Your task to perform on an android device: toggle javascript in the chrome app Image 0: 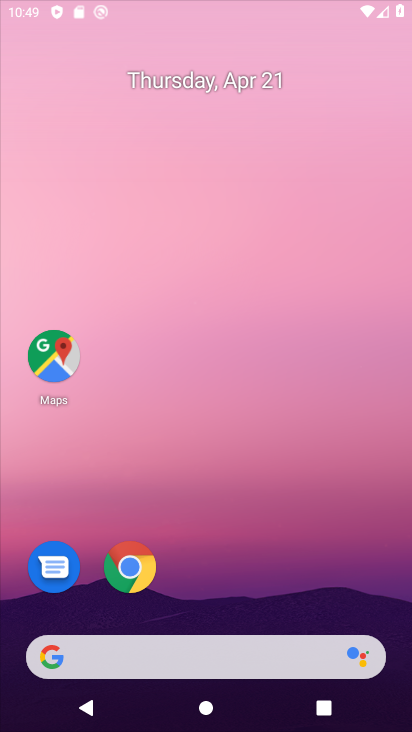
Step 0: drag from (207, 533) to (241, 96)
Your task to perform on an android device: toggle javascript in the chrome app Image 1: 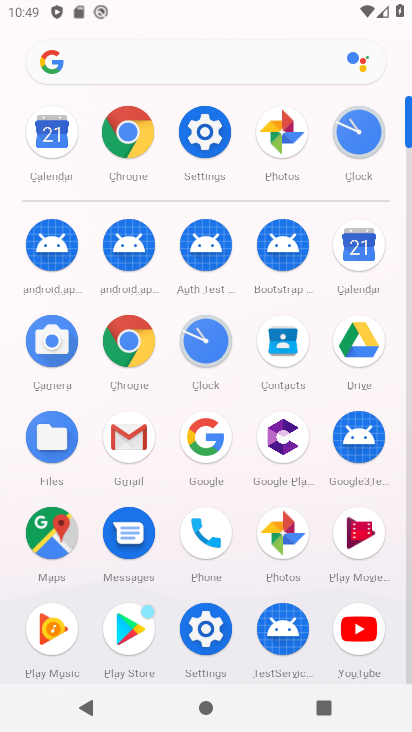
Step 1: click (125, 330)
Your task to perform on an android device: toggle javascript in the chrome app Image 2: 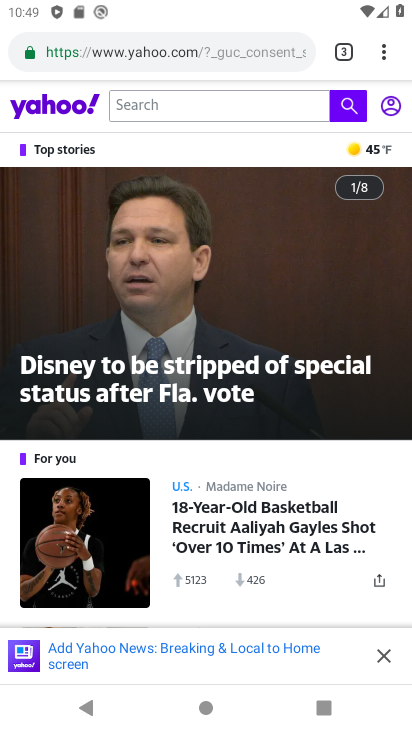
Step 2: click (390, 54)
Your task to perform on an android device: toggle javascript in the chrome app Image 3: 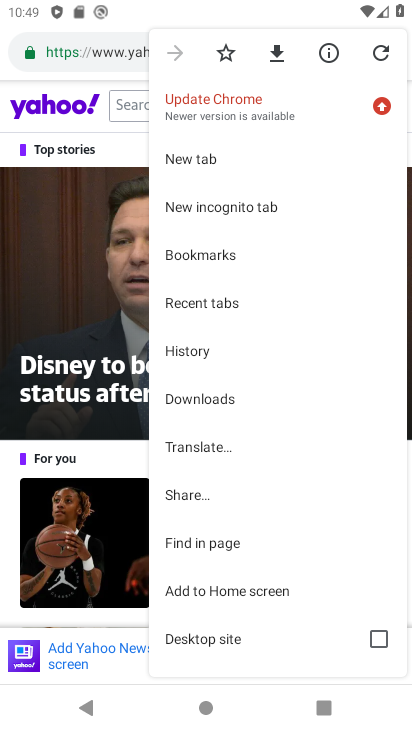
Step 3: drag from (197, 620) to (247, 253)
Your task to perform on an android device: toggle javascript in the chrome app Image 4: 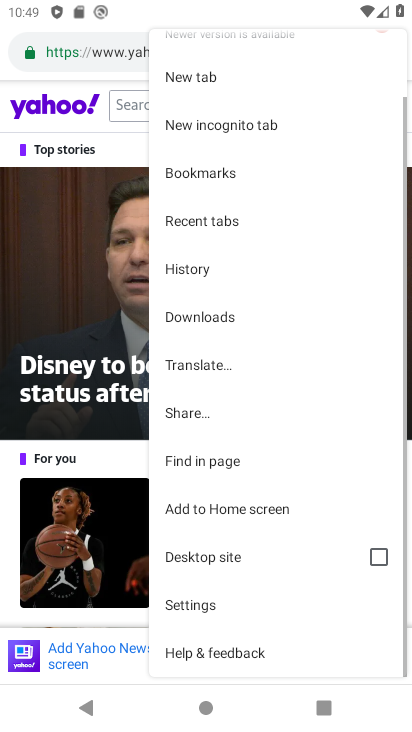
Step 4: click (213, 607)
Your task to perform on an android device: toggle javascript in the chrome app Image 5: 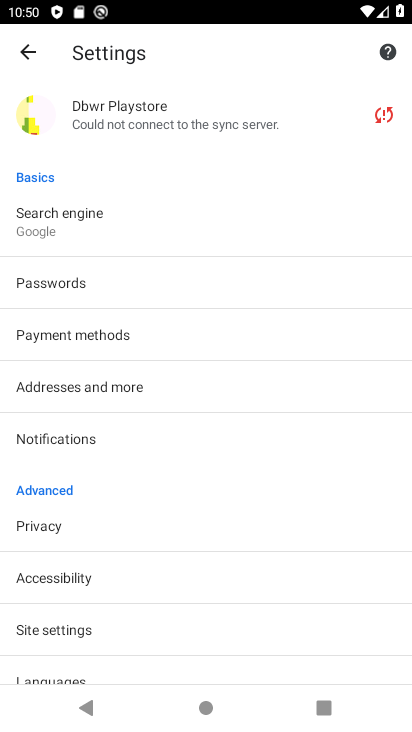
Step 5: click (65, 633)
Your task to perform on an android device: toggle javascript in the chrome app Image 6: 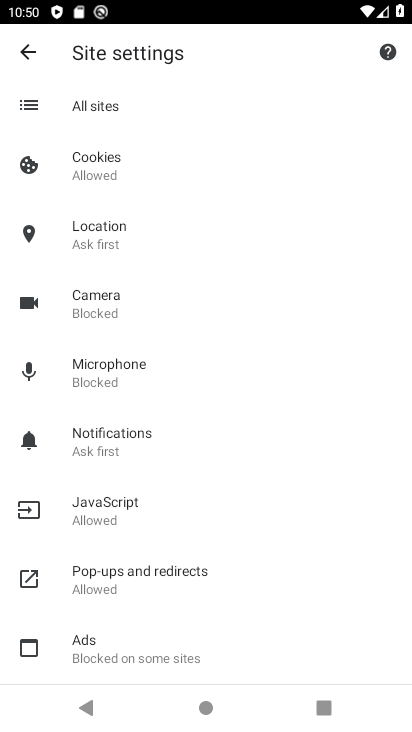
Step 6: click (112, 523)
Your task to perform on an android device: toggle javascript in the chrome app Image 7: 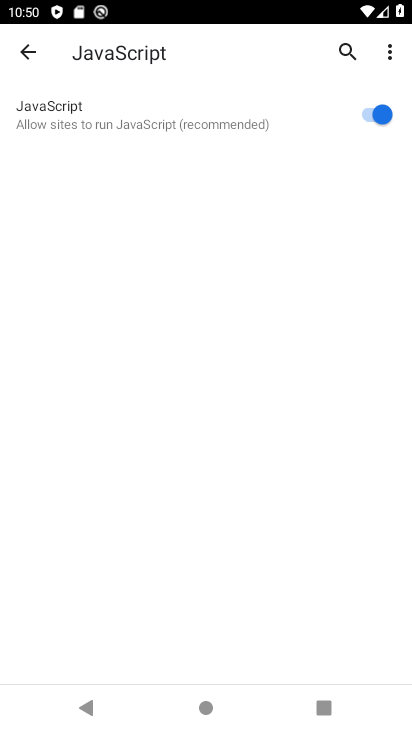
Step 7: click (362, 111)
Your task to perform on an android device: toggle javascript in the chrome app Image 8: 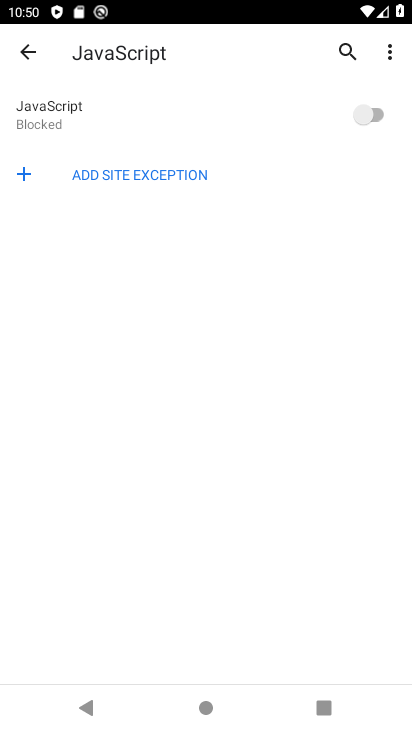
Step 8: task complete